Your task to perform on an android device: Check the news Image 0: 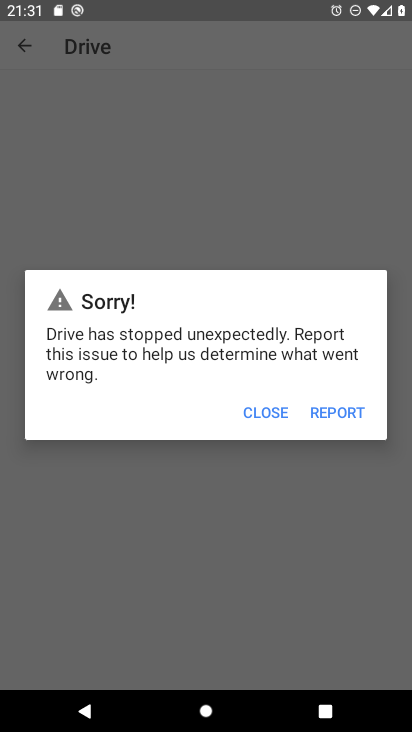
Step 0: press home button
Your task to perform on an android device: Check the news Image 1: 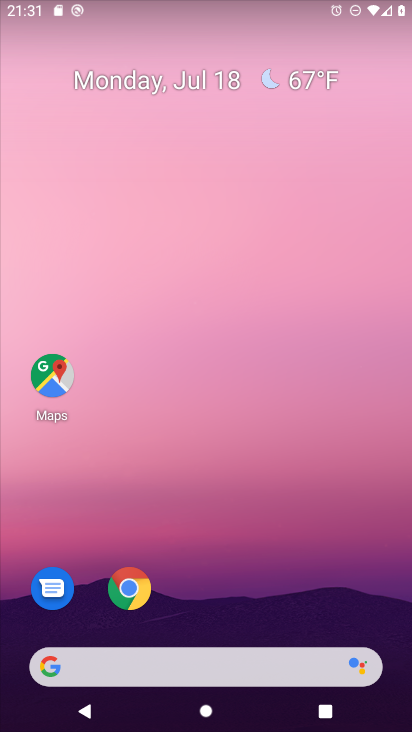
Step 1: task complete